Your task to perform on an android device: Go to display settings Image 0: 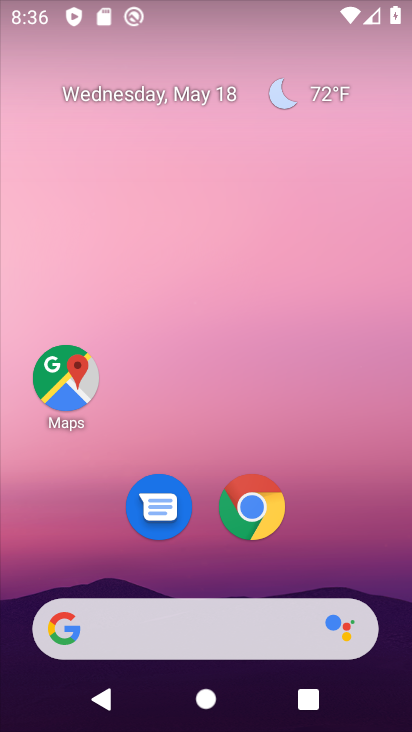
Step 0: drag from (334, 497) to (339, 34)
Your task to perform on an android device: Go to display settings Image 1: 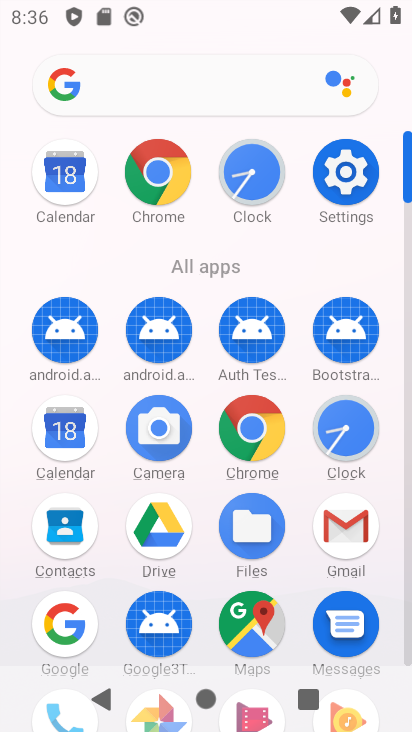
Step 1: click (335, 179)
Your task to perform on an android device: Go to display settings Image 2: 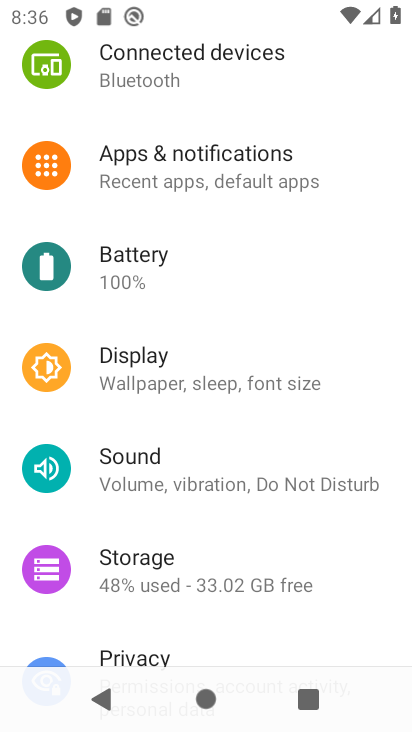
Step 2: click (169, 372)
Your task to perform on an android device: Go to display settings Image 3: 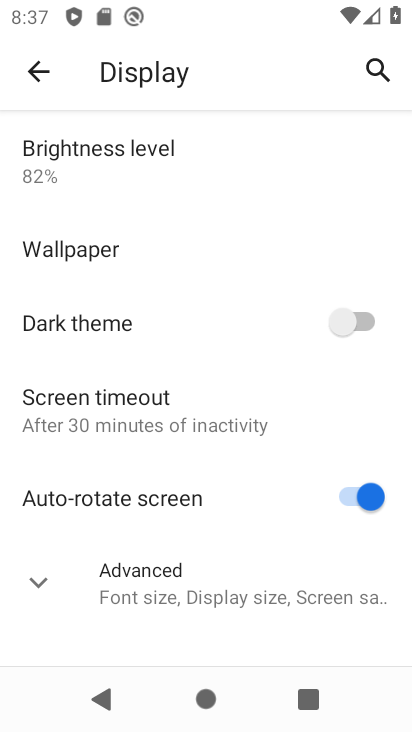
Step 3: task complete